Your task to perform on an android device: Open the map Image 0: 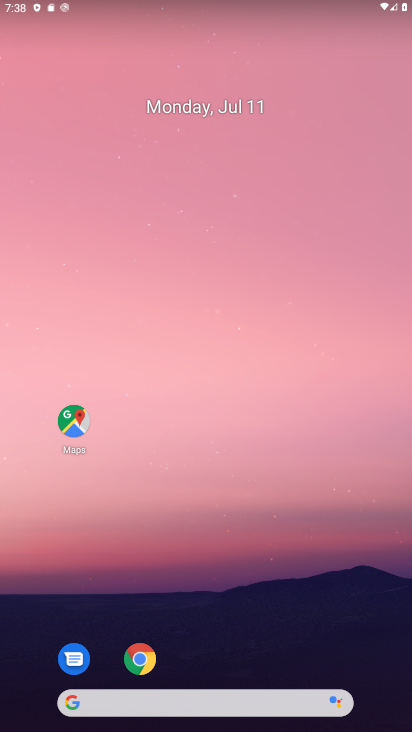
Step 0: drag from (218, 330) to (186, 39)
Your task to perform on an android device: Open the map Image 1: 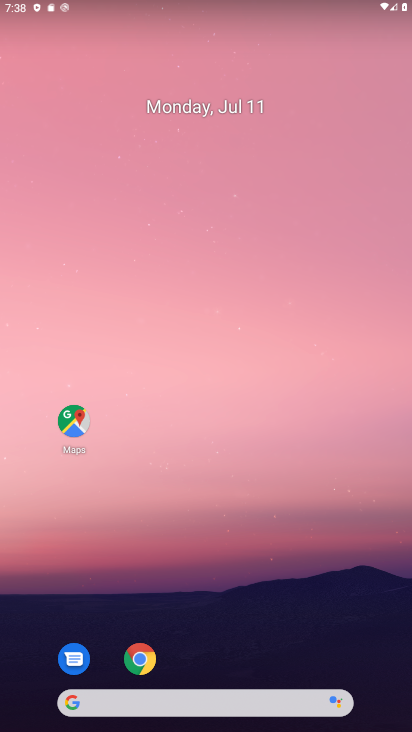
Step 1: drag from (246, 387) to (201, 21)
Your task to perform on an android device: Open the map Image 2: 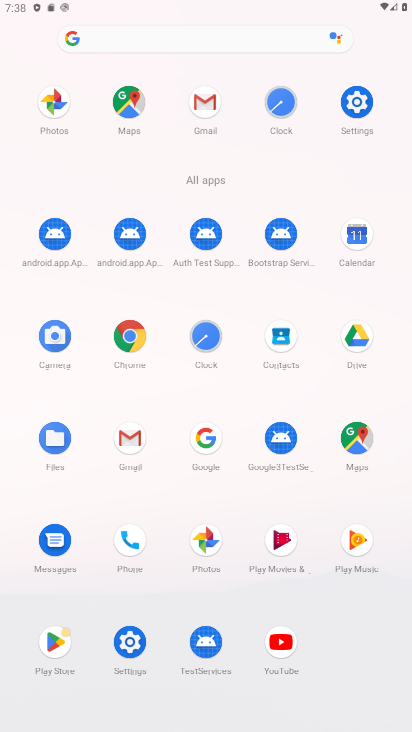
Step 2: click (121, 110)
Your task to perform on an android device: Open the map Image 3: 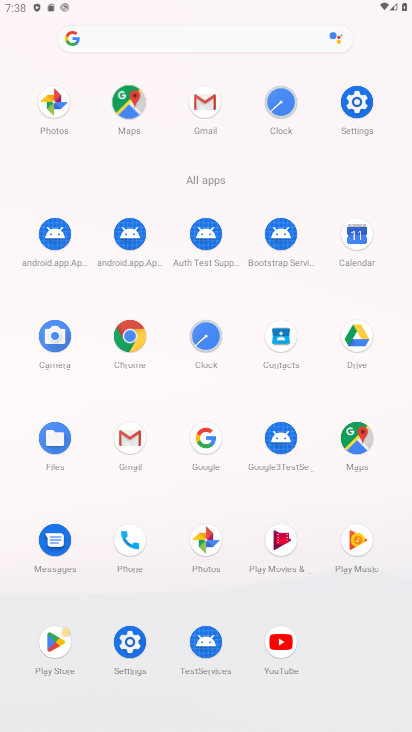
Step 3: click (121, 110)
Your task to perform on an android device: Open the map Image 4: 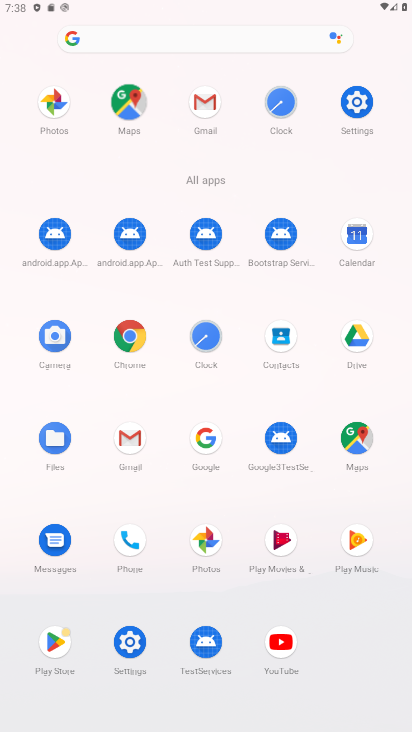
Step 4: click (121, 110)
Your task to perform on an android device: Open the map Image 5: 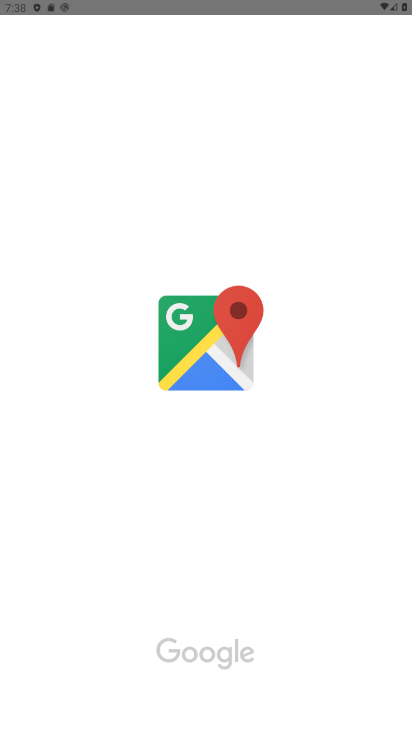
Step 5: click (130, 107)
Your task to perform on an android device: Open the map Image 6: 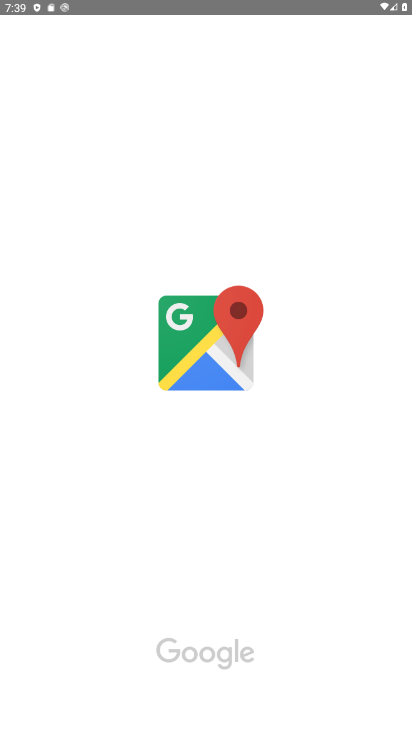
Step 6: click (130, 107)
Your task to perform on an android device: Open the map Image 7: 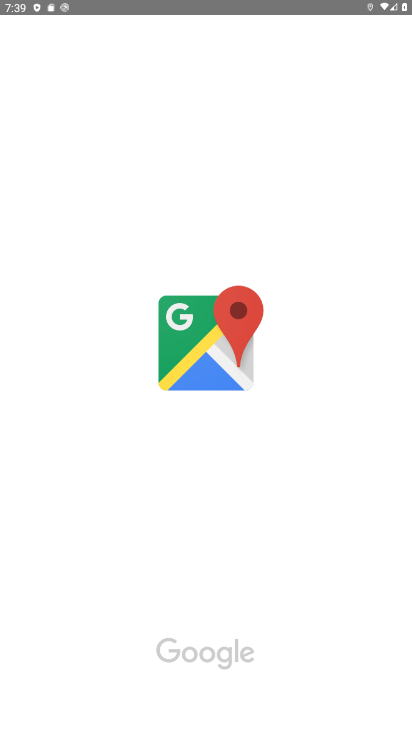
Step 7: click (199, 359)
Your task to perform on an android device: Open the map Image 8: 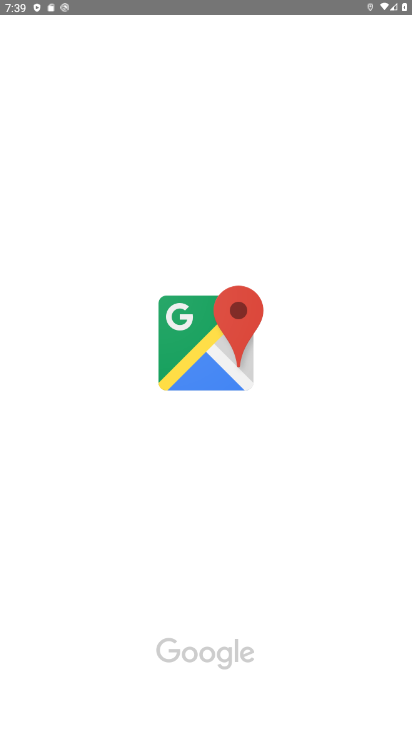
Step 8: click (199, 361)
Your task to perform on an android device: Open the map Image 9: 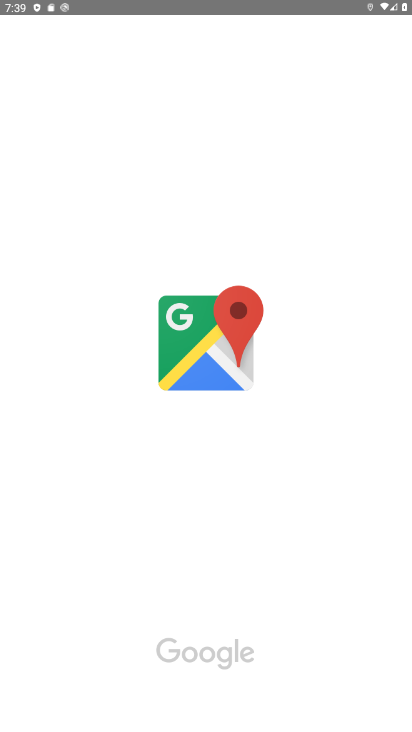
Step 9: click (200, 358)
Your task to perform on an android device: Open the map Image 10: 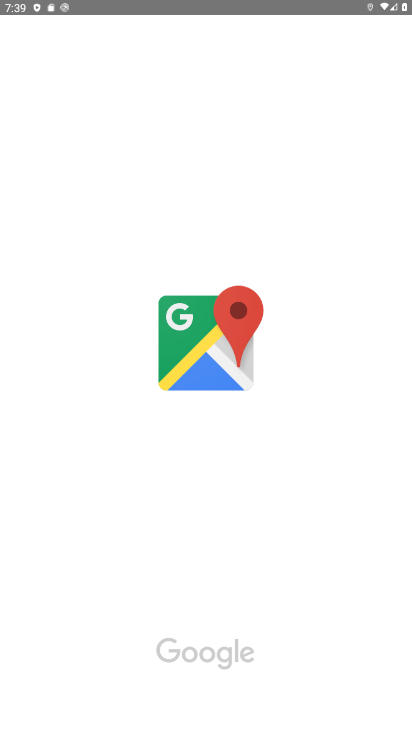
Step 10: click (200, 358)
Your task to perform on an android device: Open the map Image 11: 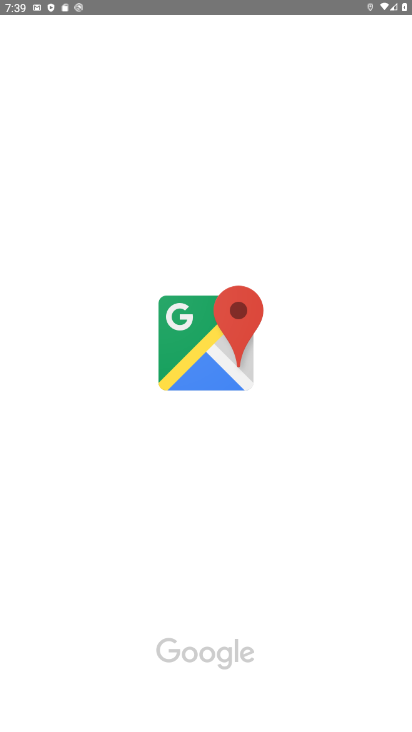
Step 11: click (203, 359)
Your task to perform on an android device: Open the map Image 12: 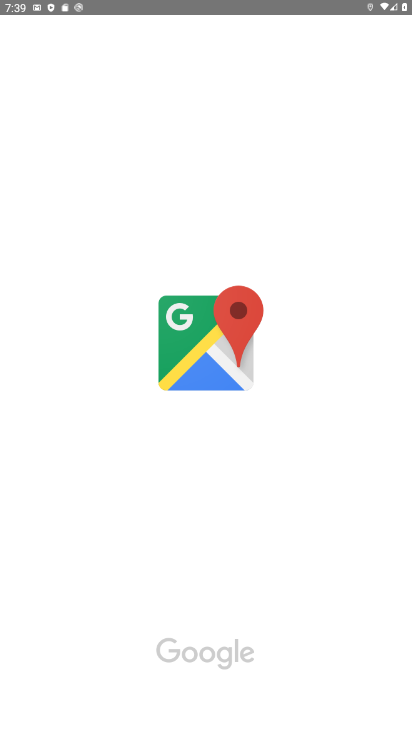
Step 12: click (206, 358)
Your task to perform on an android device: Open the map Image 13: 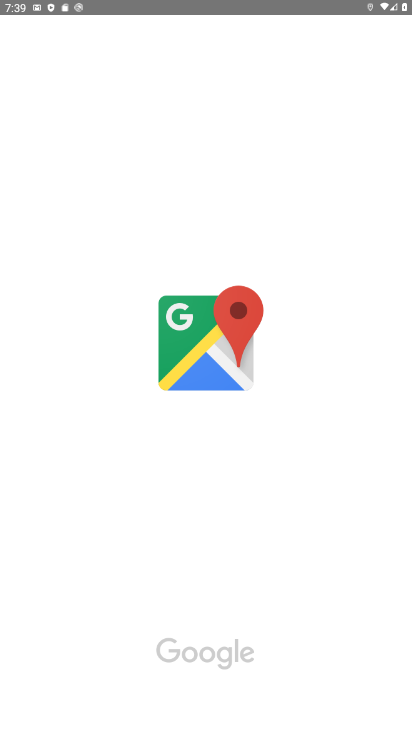
Step 13: click (210, 357)
Your task to perform on an android device: Open the map Image 14: 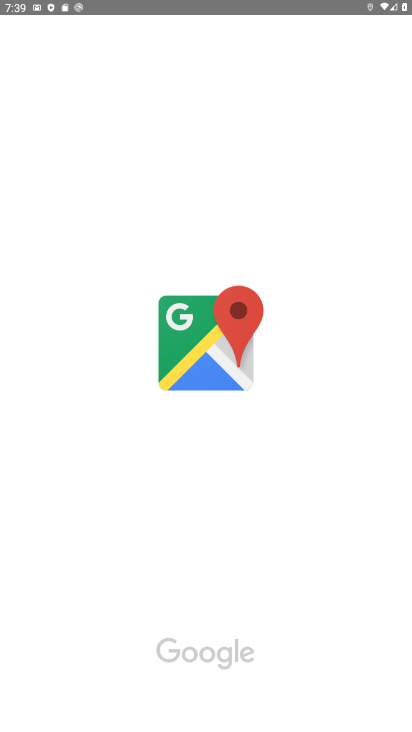
Step 14: click (210, 372)
Your task to perform on an android device: Open the map Image 15: 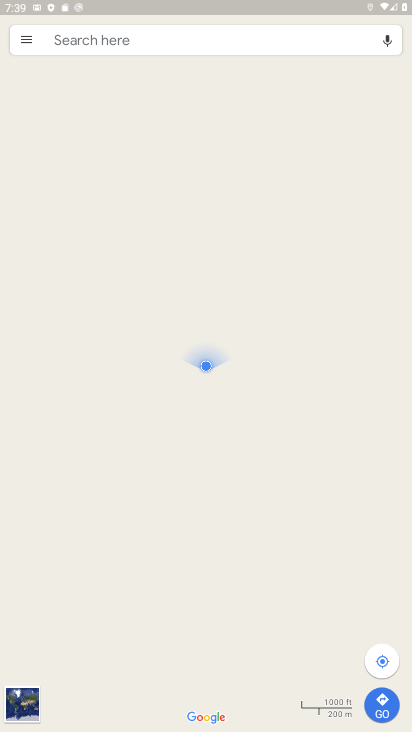
Step 15: click (71, 39)
Your task to perform on an android device: Open the map Image 16: 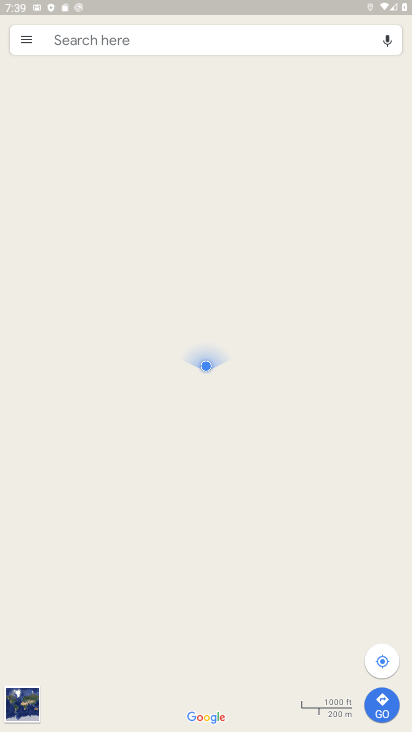
Step 16: click (74, 39)
Your task to perform on an android device: Open the map Image 17: 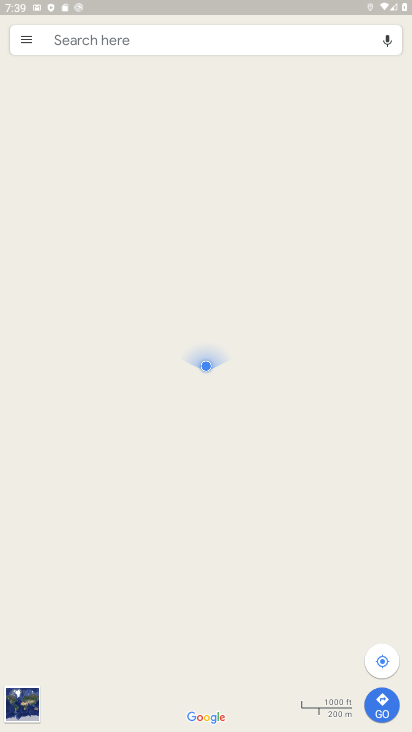
Step 17: click (75, 39)
Your task to perform on an android device: Open the map Image 18: 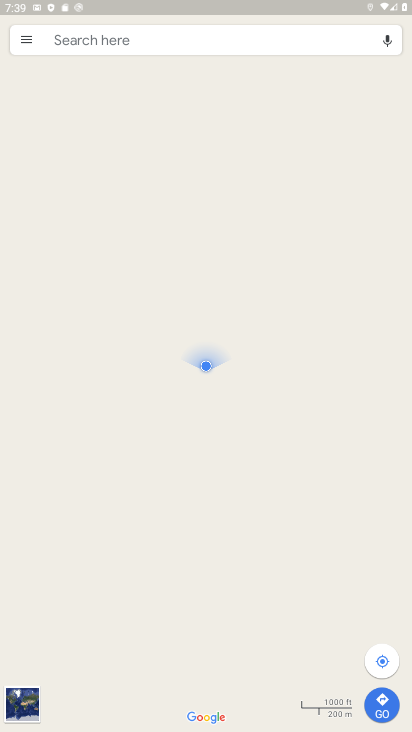
Step 18: click (83, 40)
Your task to perform on an android device: Open the map Image 19: 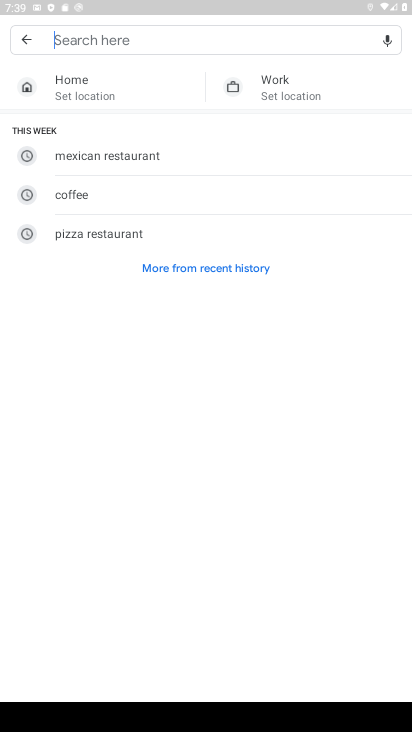
Step 19: click (83, 198)
Your task to perform on an android device: Open the map Image 20: 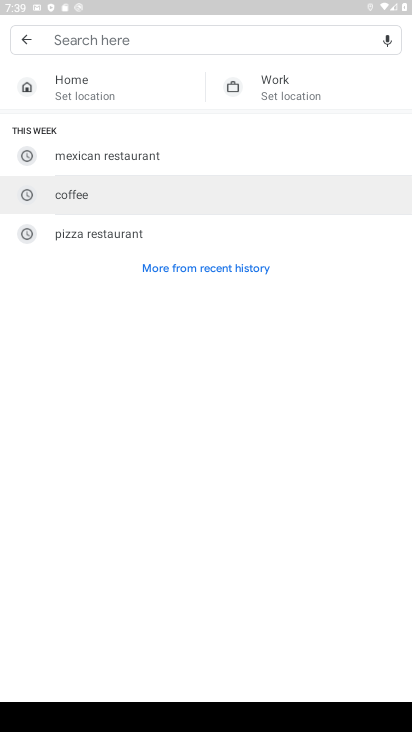
Step 20: click (83, 197)
Your task to perform on an android device: Open the map Image 21: 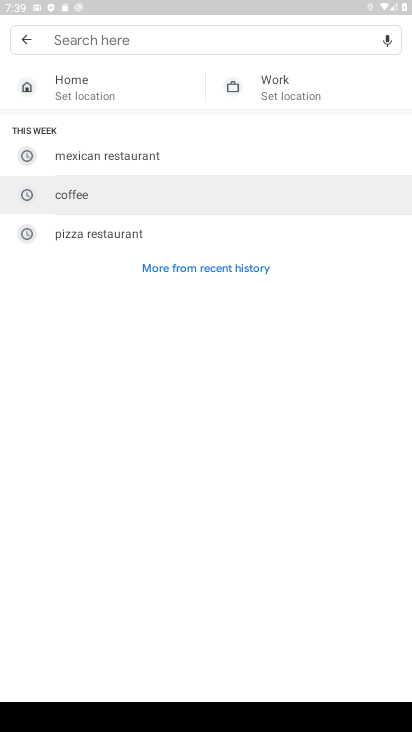
Step 21: click (82, 198)
Your task to perform on an android device: Open the map Image 22: 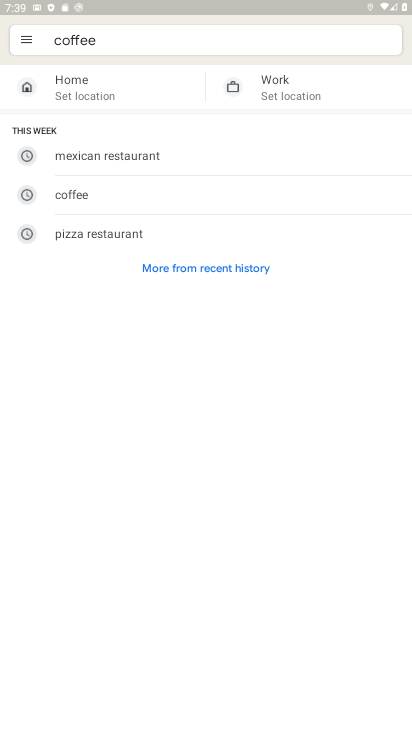
Step 22: click (82, 198)
Your task to perform on an android device: Open the map Image 23: 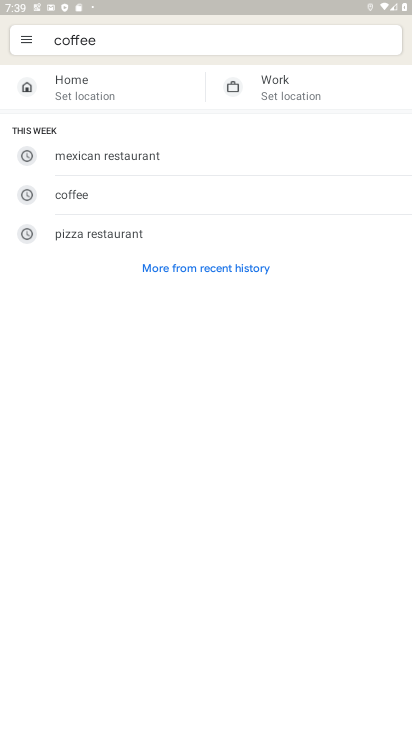
Step 23: click (85, 195)
Your task to perform on an android device: Open the map Image 24: 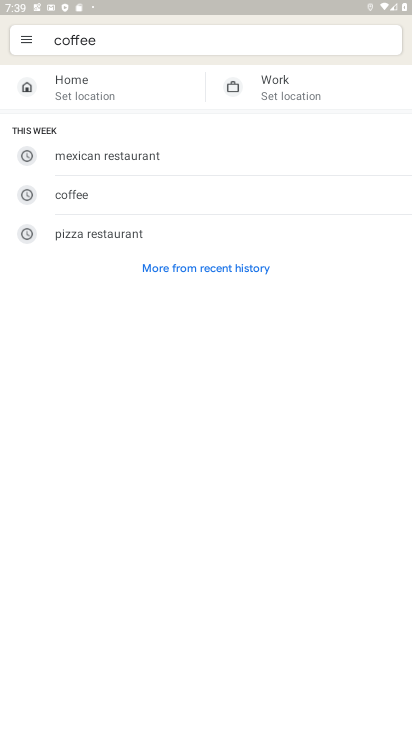
Step 24: click (87, 195)
Your task to perform on an android device: Open the map Image 25: 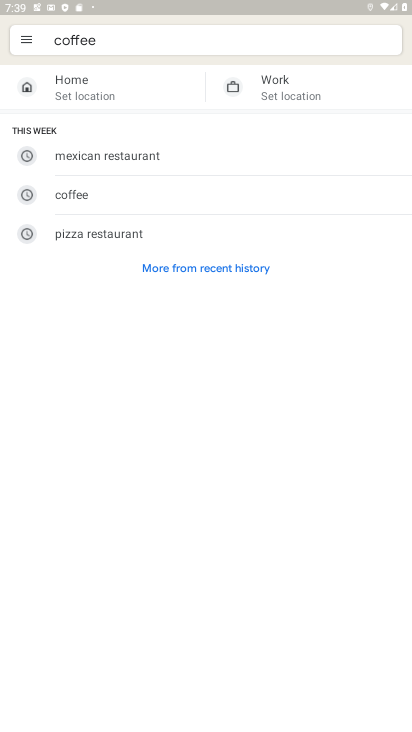
Step 25: click (91, 195)
Your task to perform on an android device: Open the map Image 26: 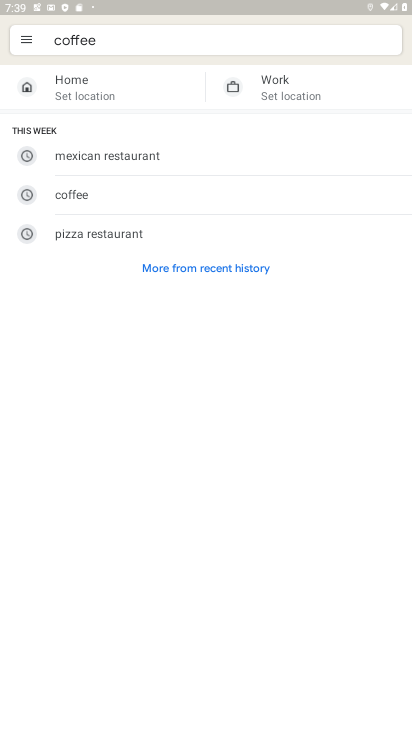
Step 26: click (96, 196)
Your task to perform on an android device: Open the map Image 27: 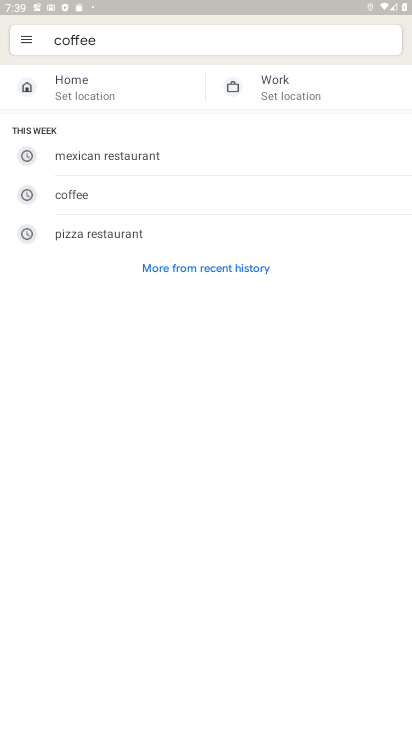
Step 27: click (96, 197)
Your task to perform on an android device: Open the map Image 28: 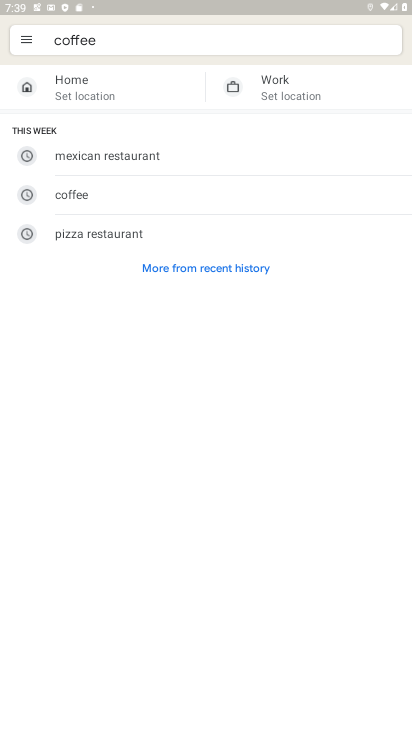
Step 28: click (96, 197)
Your task to perform on an android device: Open the map Image 29: 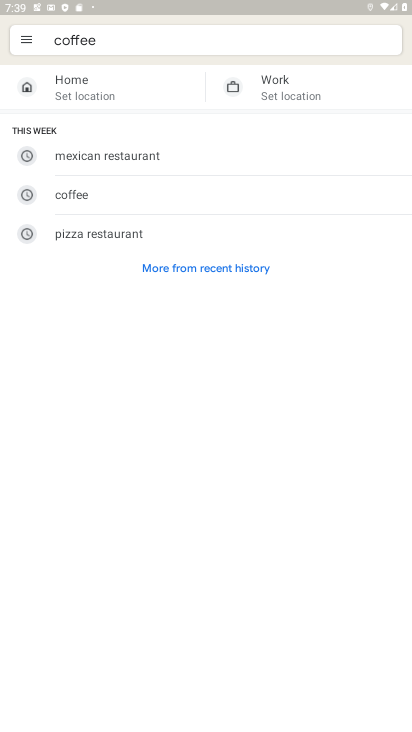
Step 29: click (96, 197)
Your task to perform on an android device: Open the map Image 30: 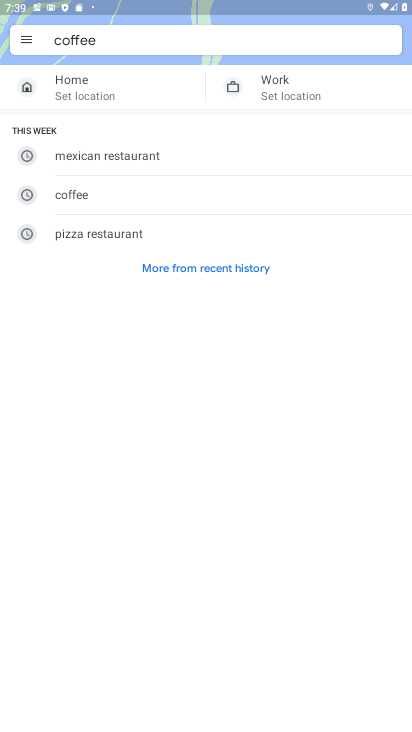
Step 30: click (96, 197)
Your task to perform on an android device: Open the map Image 31: 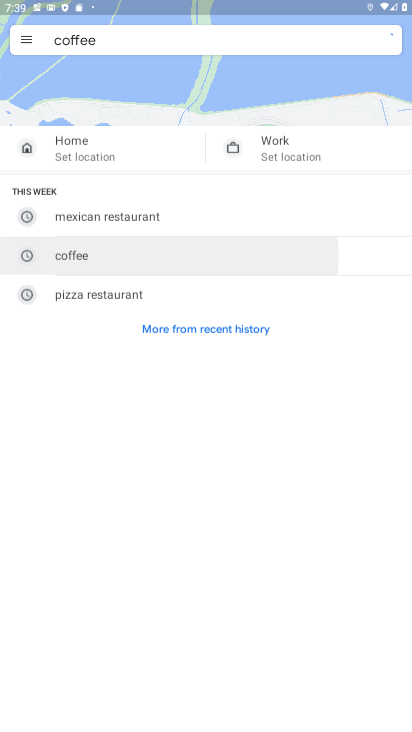
Step 31: click (96, 197)
Your task to perform on an android device: Open the map Image 32: 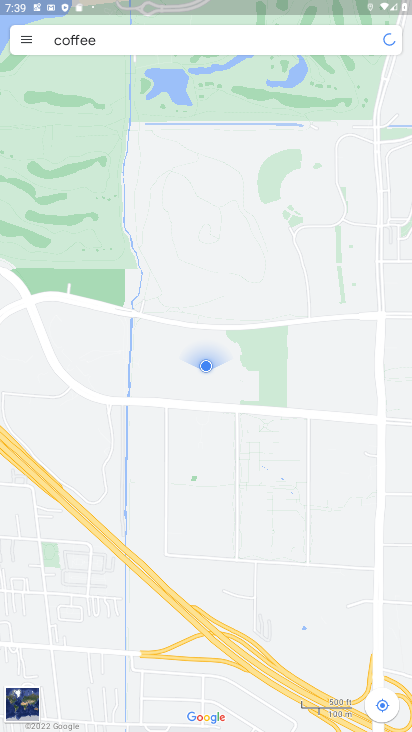
Step 32: task complete